Your task to perform on an android device: toggle translation in the chrome app Image 0: 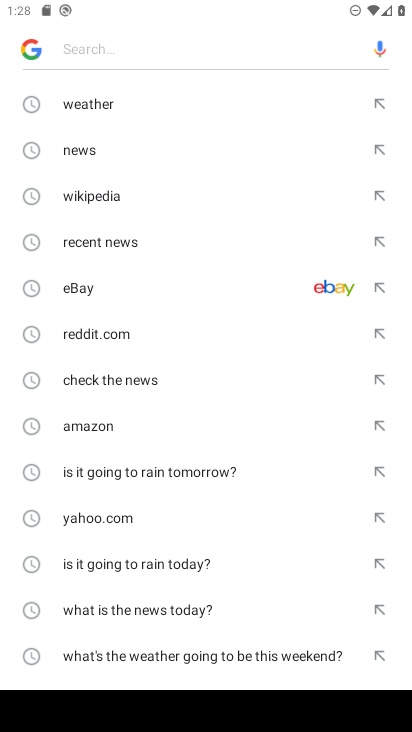
Step 0: press home button
Your task to perform on an android device: toggle translation in the chrome app Image 1: 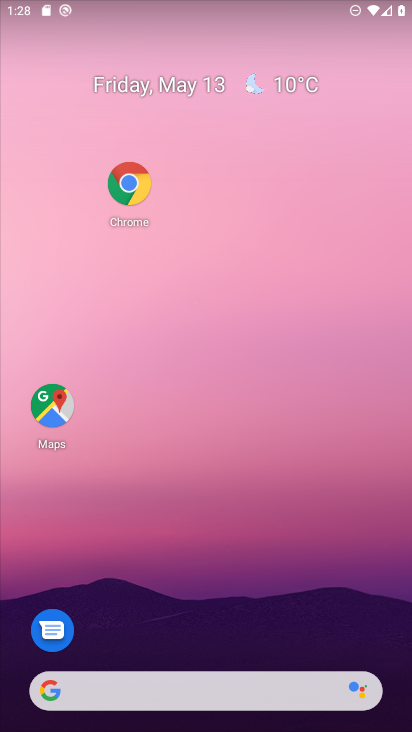
Step 1: click (132, 189)
Your task to perform on an android device: toggle translation in the chrome app Image 2: 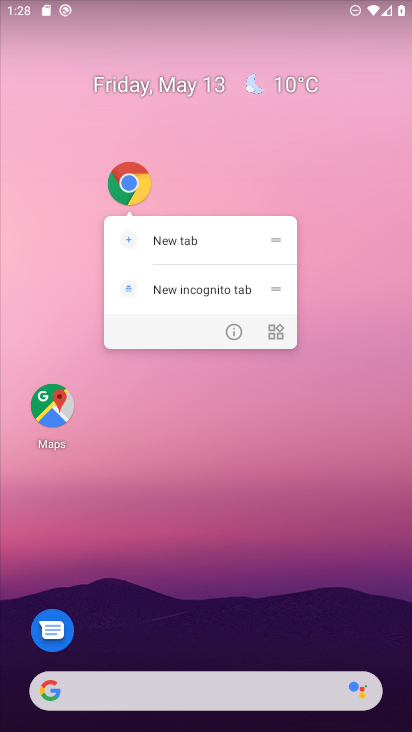
Step 2: click (123, 190)
Your task to perform on an android device: toggle translation in the chrome app Image 3: 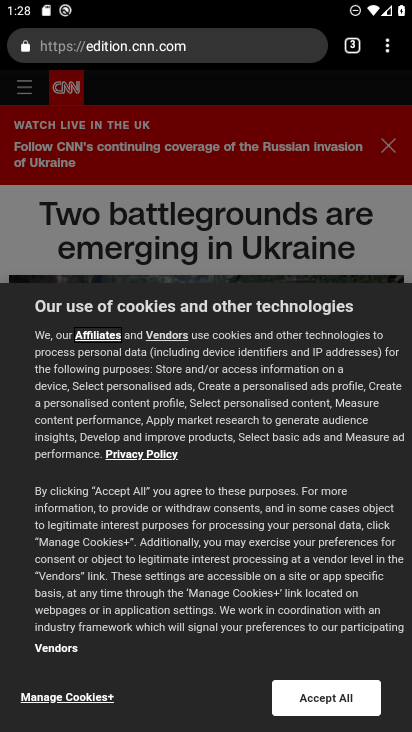
Step 3: drag from (392, 59) to (250, 564)
Your task to perform on an android device: toggle translation in the chrome app Image 4: 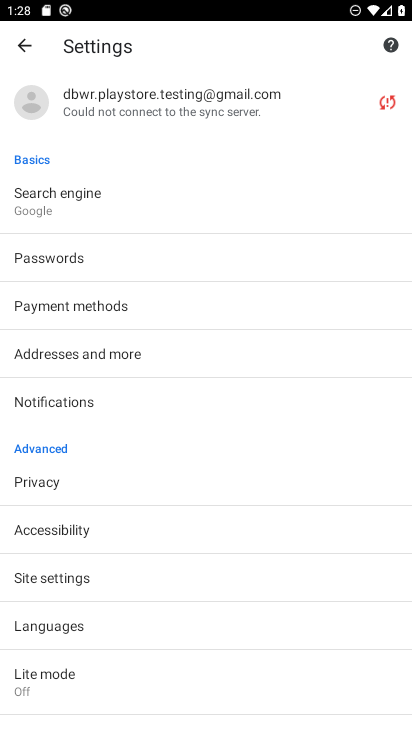
Step 4: click (87, 622)
Your task to perform on an android device: toggle translation in the chrome app Image 5: 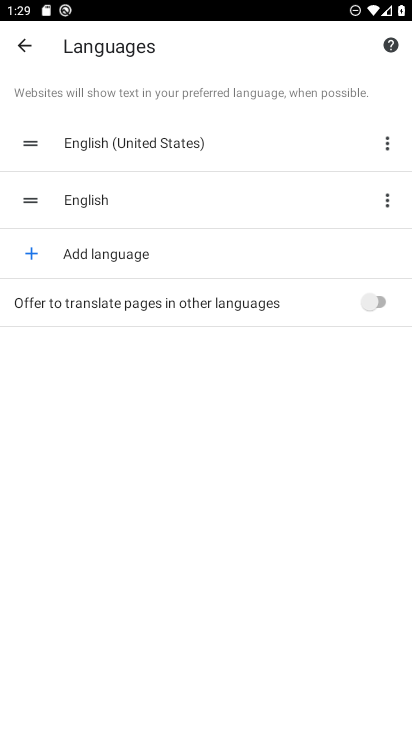
Step 5: click (368, 299)
Your task to perform on an android device: toggle translation in the chrome app Image 6: 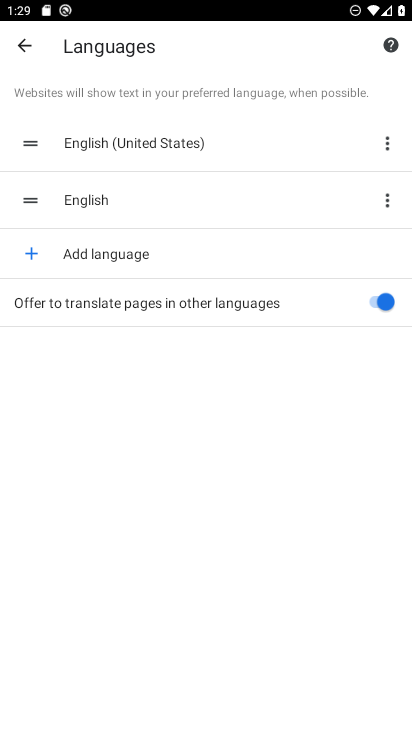
Step 6: task complete